Your task to perform on an android device: Go to privacy settings Image 0: 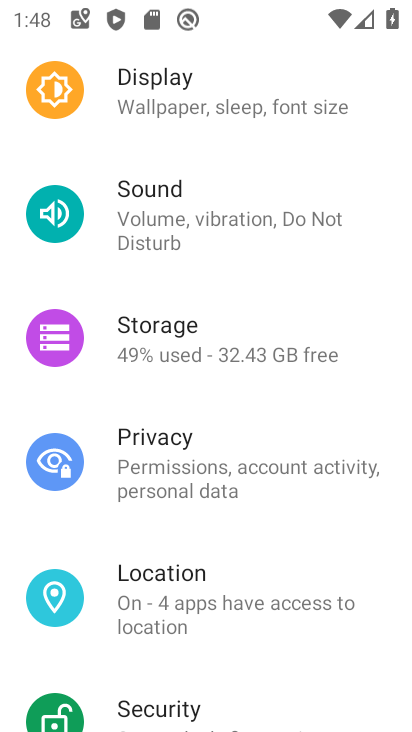
Step 0: drag from (66, 619) to (130, 505)
Your task to perform on an android device: Go to privacy settings Image 1: 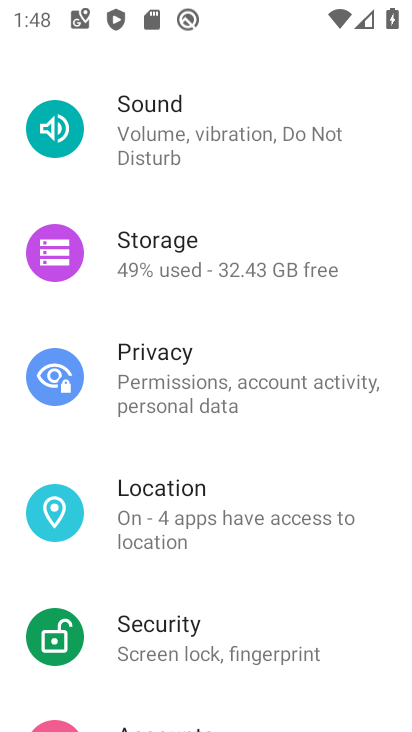
Step 1: click (185, 364)
Your task to perform on an android device: Go to privacy settings Image 2: 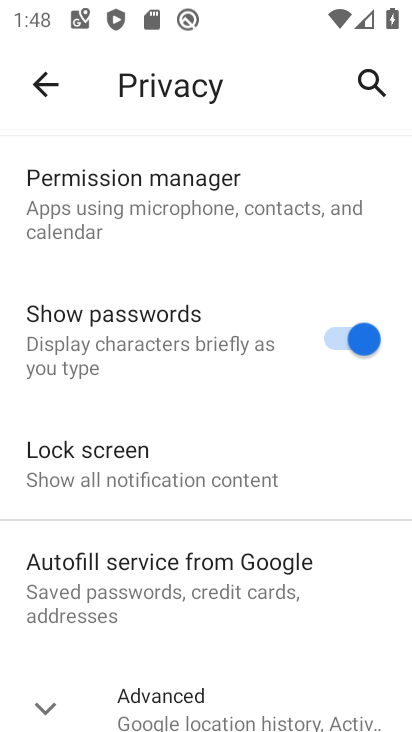
Step 2: task complete